Your task to perform on an android device: Search for "bose soundsport free" on newegg.com, select the first entry, add it to the cart, then select checkout. Image 0: 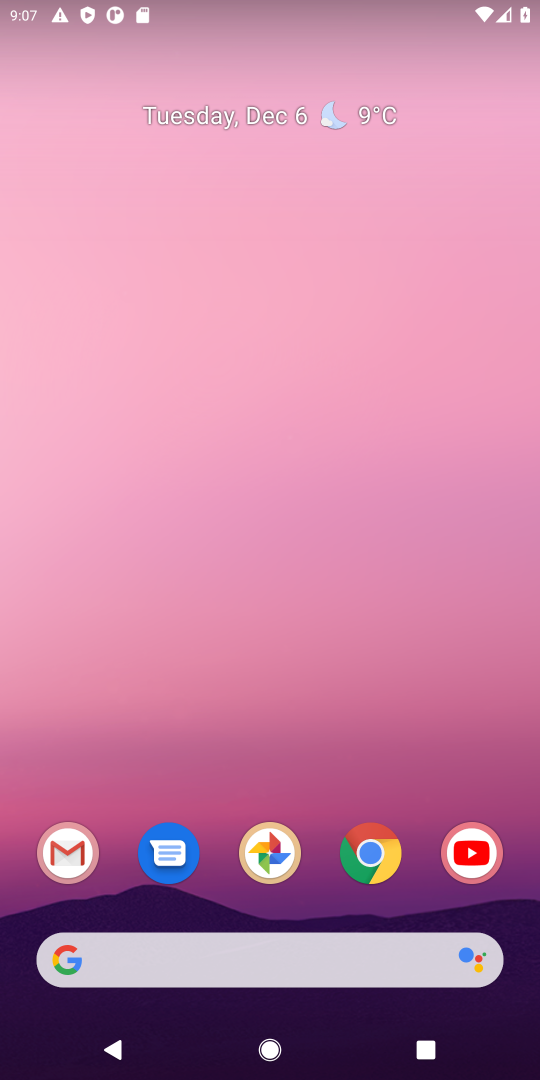
Step 0: task complete